Your task to perform on an android device: turn pop-ups off in chrome Image 0: 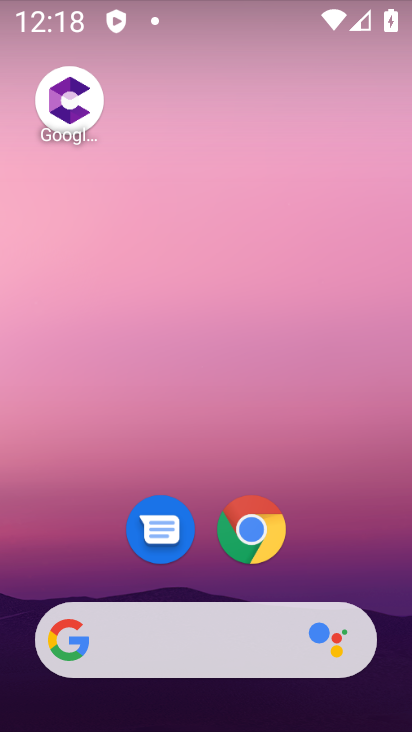
Step 0: click (249, 520)
Your task to perform on an android device: turn pop-ups off in chrome Image 1: 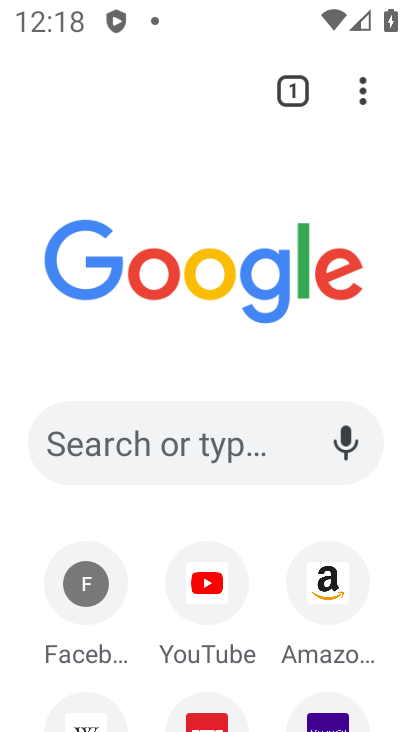
Step 1: click (362, 93)
Your task to perform on an android device: turn pop-ups off in chrome Image 2: 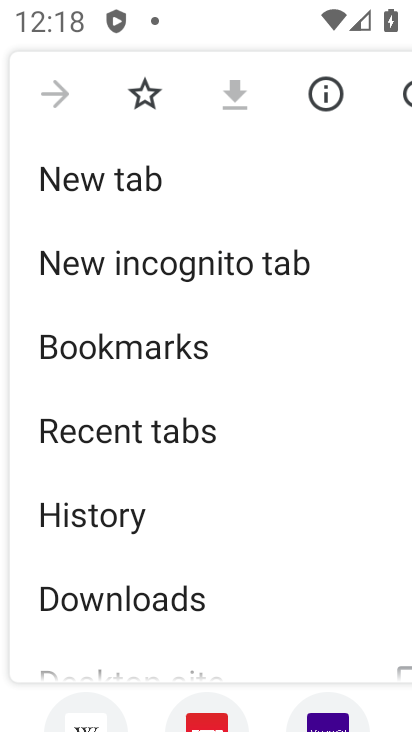
Step 2: drag from (169, 630) to (191, 326)
Your task to perform on an android device: turn pop-ups off in chrome Image 3: 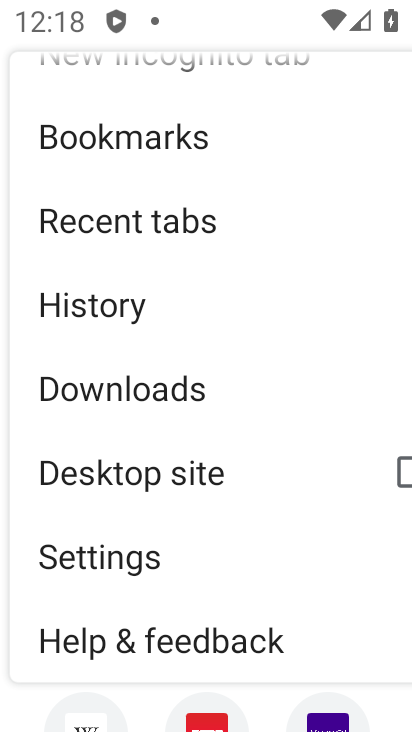
Step 3: click (115, 555)
Your task to perform on an android device: turn pop-ups off in chrome Image 4: 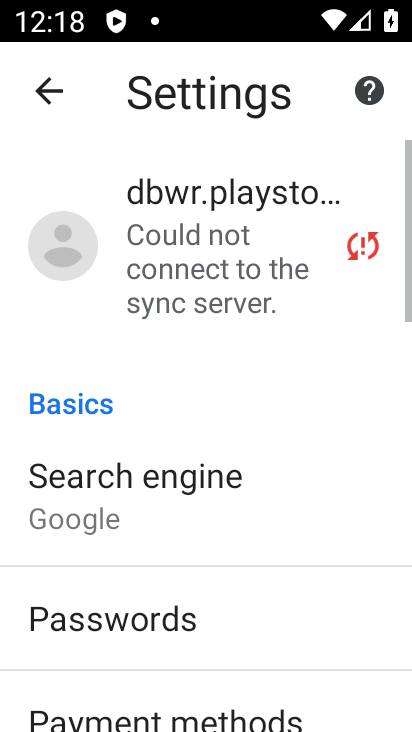
Step 4: drag from (122, 680) to (144, 232)
Your task to perform on an android device: turn pop-ups off in chrome Image 5: 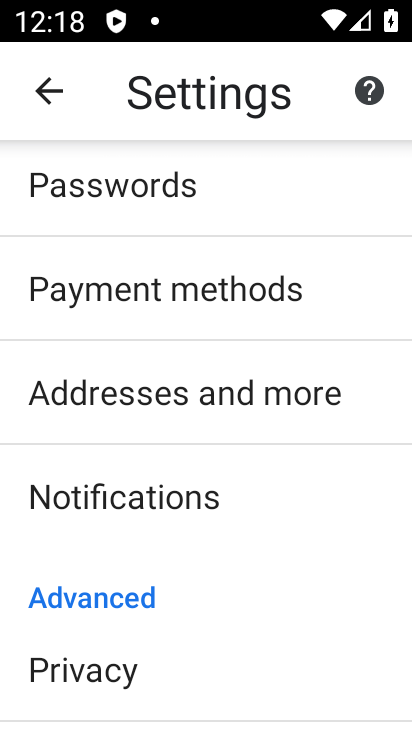
Step 5: drag from (90, 679) to (85, 310)
Your task to perform on an android device: turn pop-ups off in chrome Image 6: 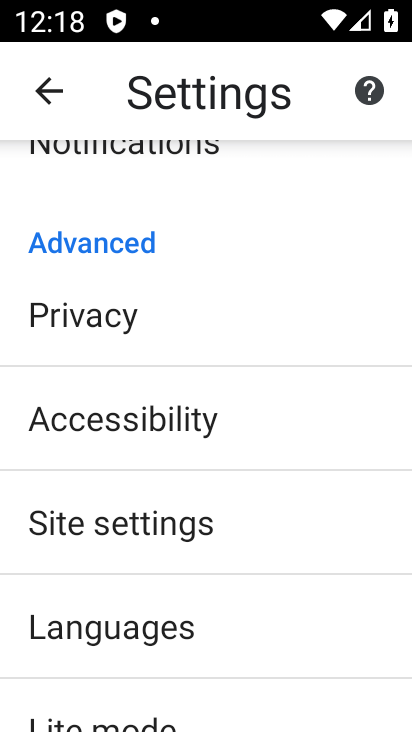
Step 6: drag from (98, 638) to (106, 332)
Your task to perform on an android device: turn pop-ups off in chrome Image 7: 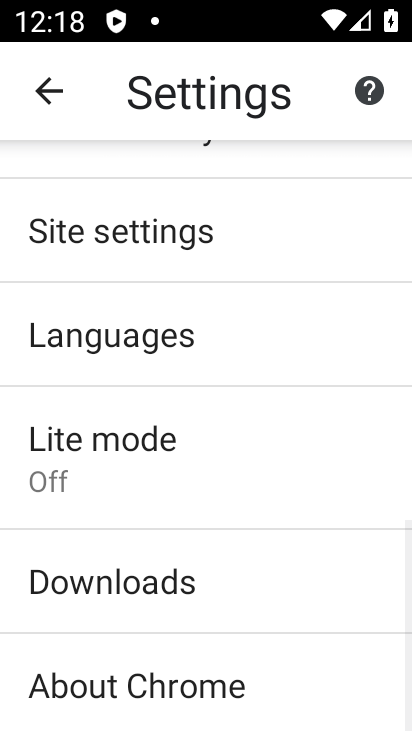
Step 7: click (120, 231)
Your task to perform on an android device: turn pop-ups off in chrome Image 8: 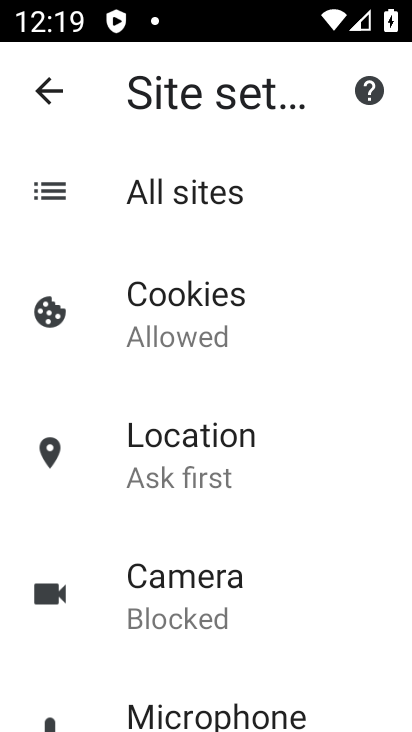
Step 8: drag from (198, 473) to (196, 207)
Your task to perform on an android device: turn pop-ups off in chrome Image 9: 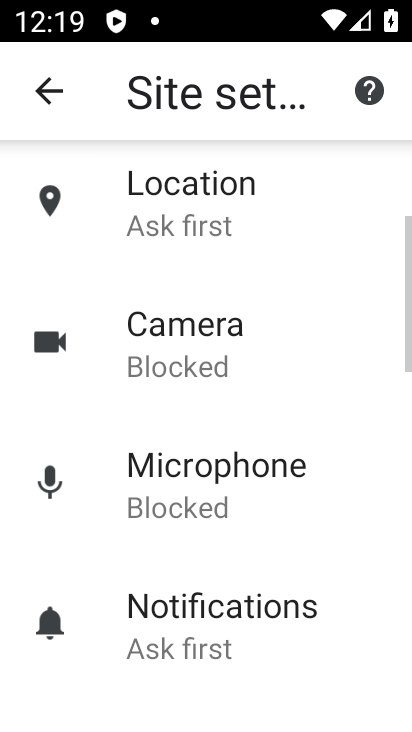
Step 9: drag from (189, 677) to (210, 184)
Your task to perform on an android device: turn pop-ups off in chrome Image 10: 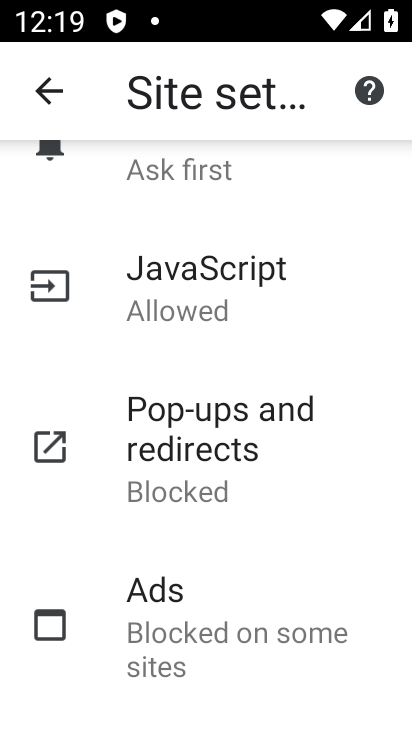
Step 10: drag from (196, 677) to (207, 281)
Your task to perform on an android device: turn pop-ups off in chrome Image 11: 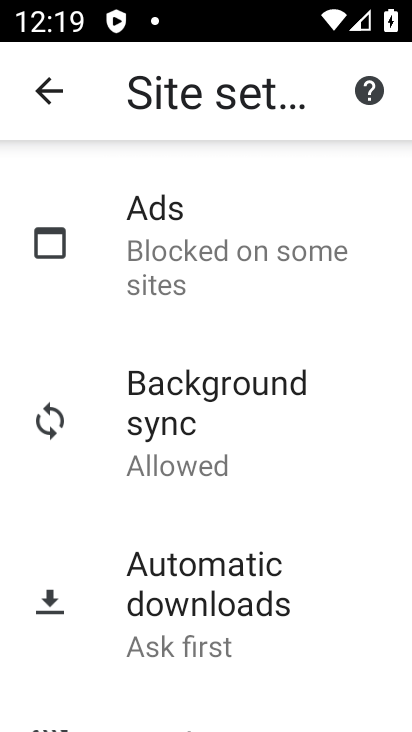
Step 11: click (161, 393)
Your task to perform on an android device: turn pop-ups off in chrome Image 12: 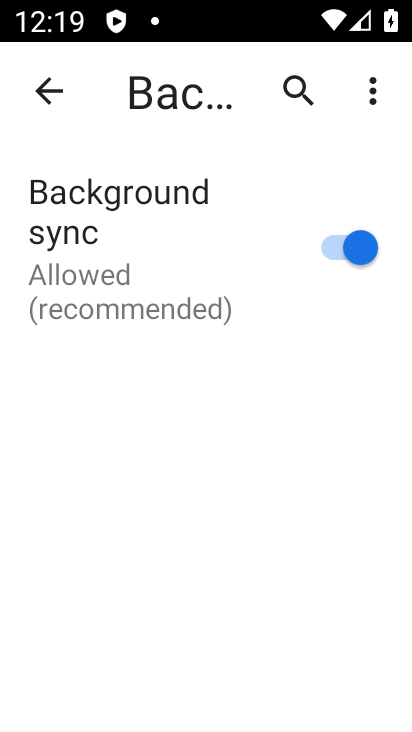
Step 12: click (40, 90)
Your task to perform on an android device: turn pop-ups off in chrome Image 13: 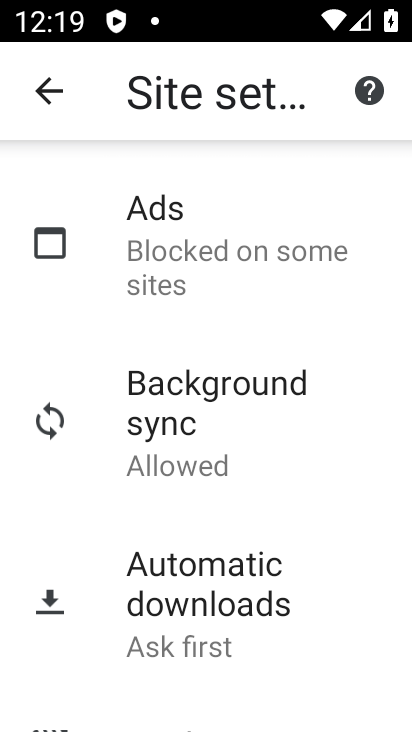
Step 13: drag from (221, 677) to (273, 216)
Your task to perform on an android device: turn pop-ups off in chrome Image 14: 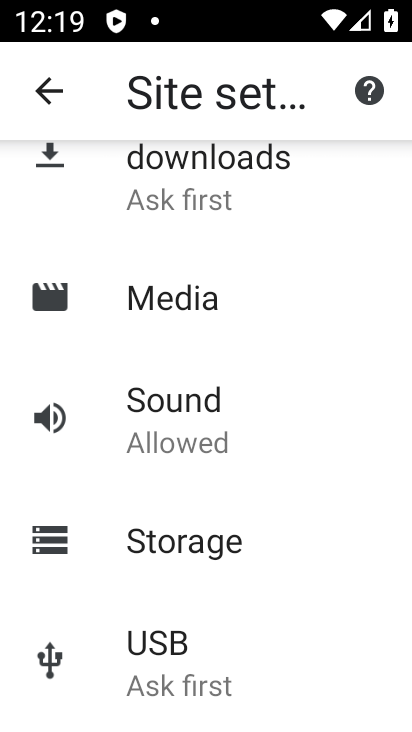
Step 14: drag from (252, 674) to (251, 379)
Your task to perform on an android device: turn pop-ups off in chrome Image 15: 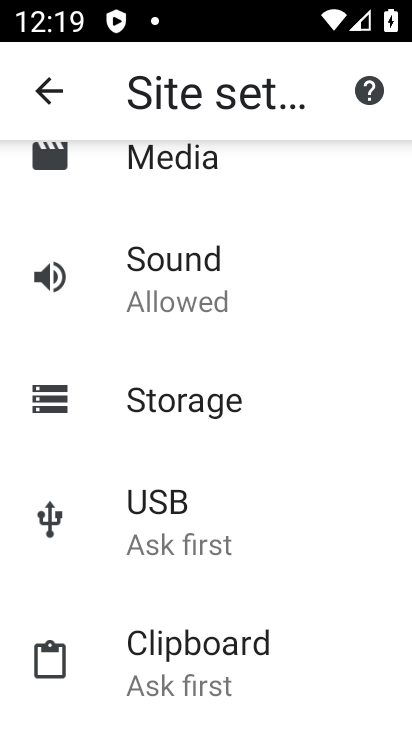
Step 15: drag from (287, 160) to (278, 580)
Your task to perform on an android device: turn pop-ups off in chrome Image 16: 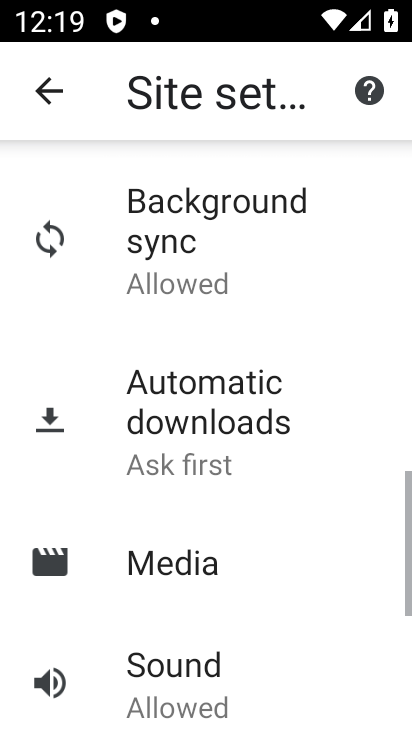
Step 16: drag from (262, 183) to (268, 543)
Your task to perform on an android device: turn pop-ups off in chrome Image 17: 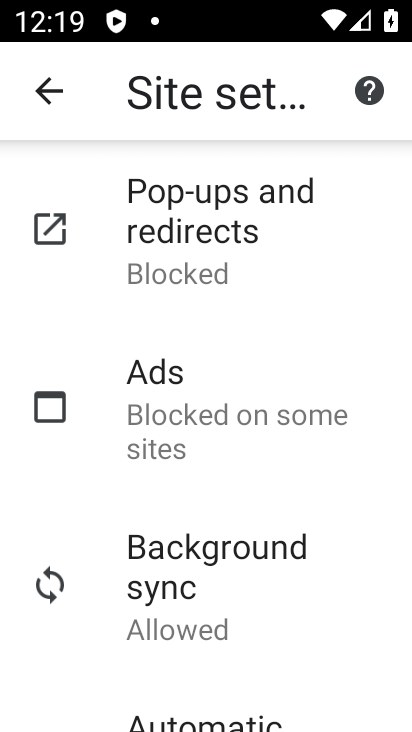
Step 17: click (201, 230)
Your task to perform on an android device: turn pop-ups off in chrome Image 18: 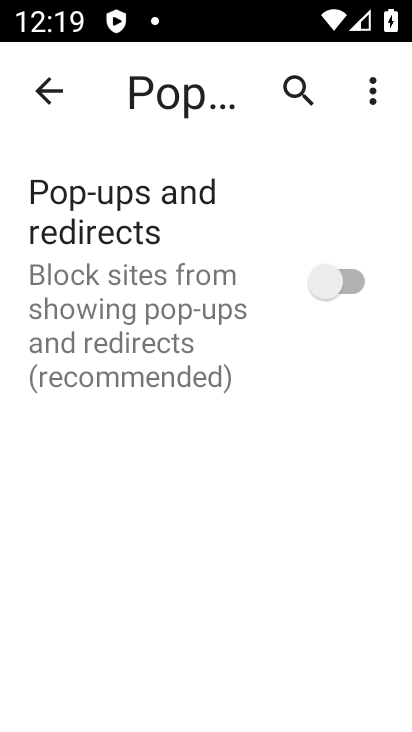
Step 18: task complete